Your task to perform on an android device: What's the weather? Image 0: 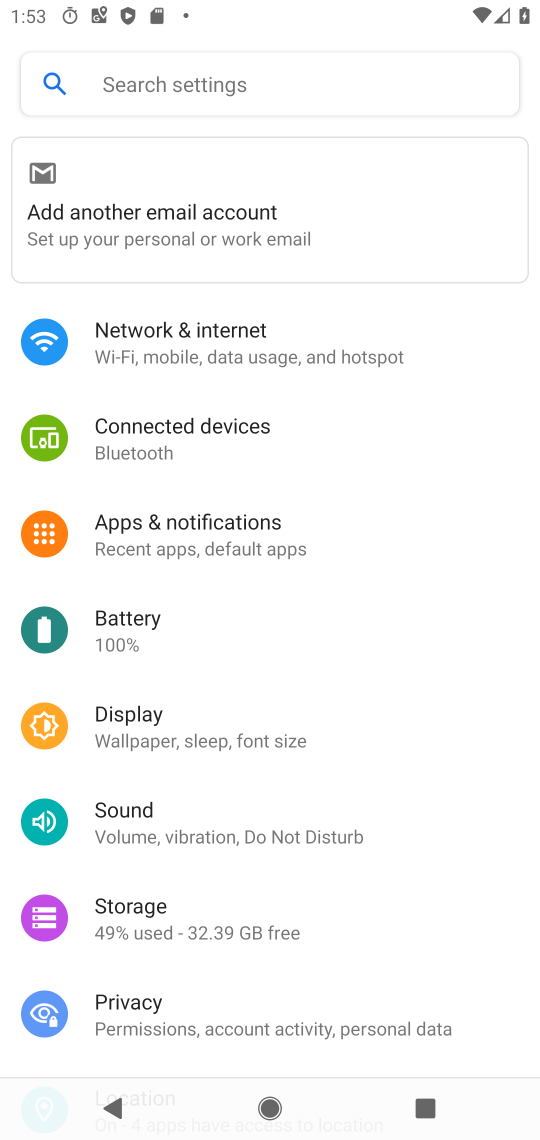
Step 0: press home button
Your task to perform on an android device: What's the weather? Image 1: 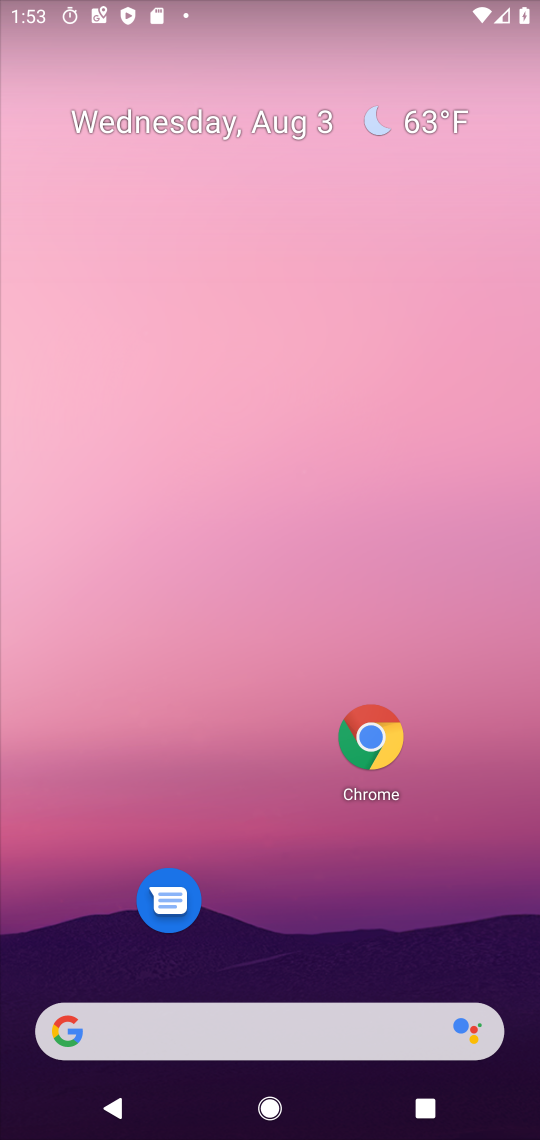
Step 1: drag from (420, 852) to (478, 180)
Your task to perform on an android device: What's the weather? Image 2: 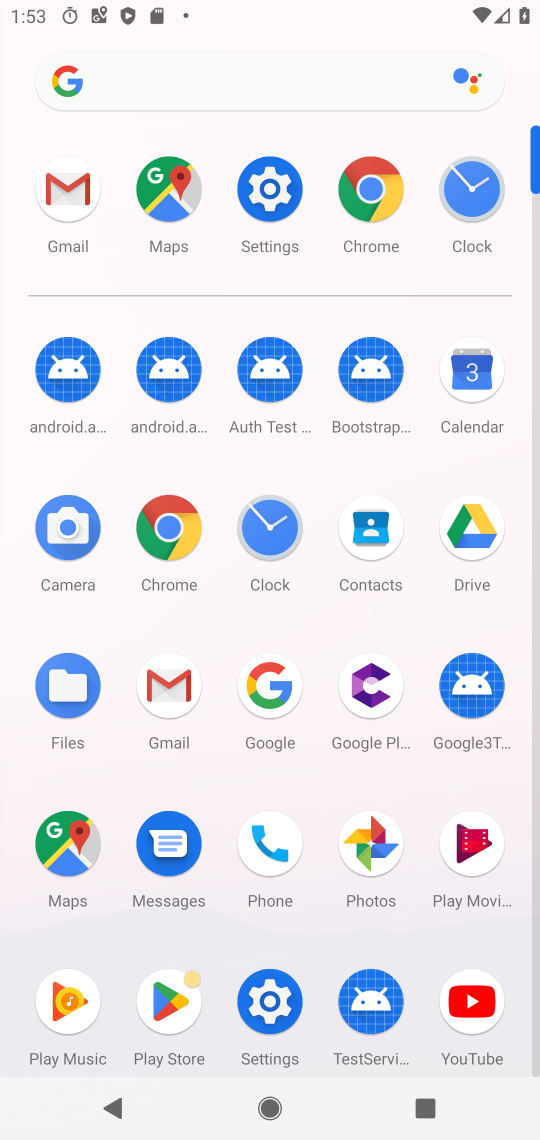
Step 2: click (167, 529)
Your task to perform on an android device: What's the weather? Image 3: 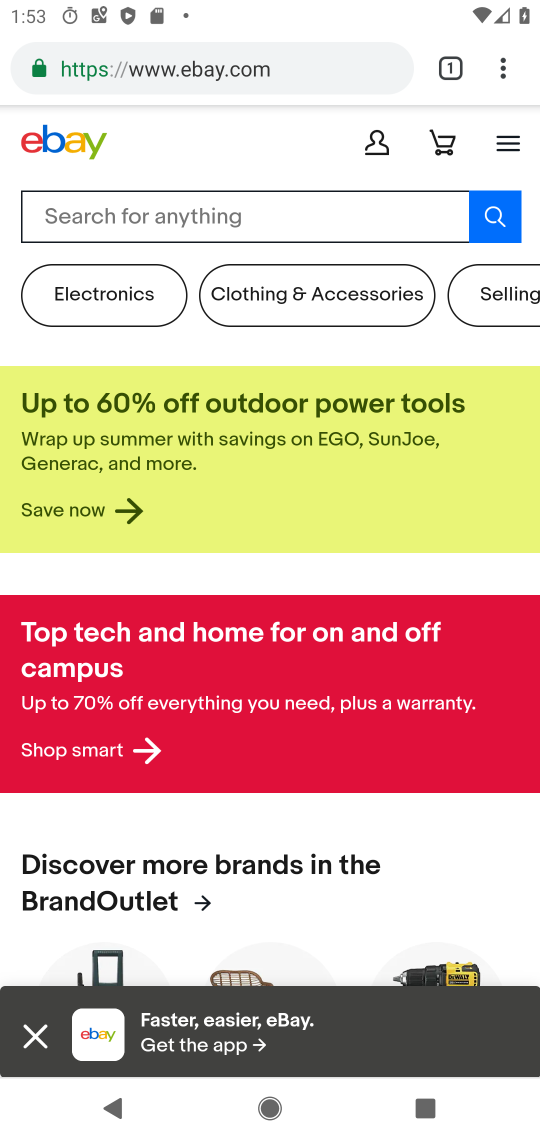
Step 3: click (259, 74)
Your task to perform on an android device: What's the weather? Image 4: 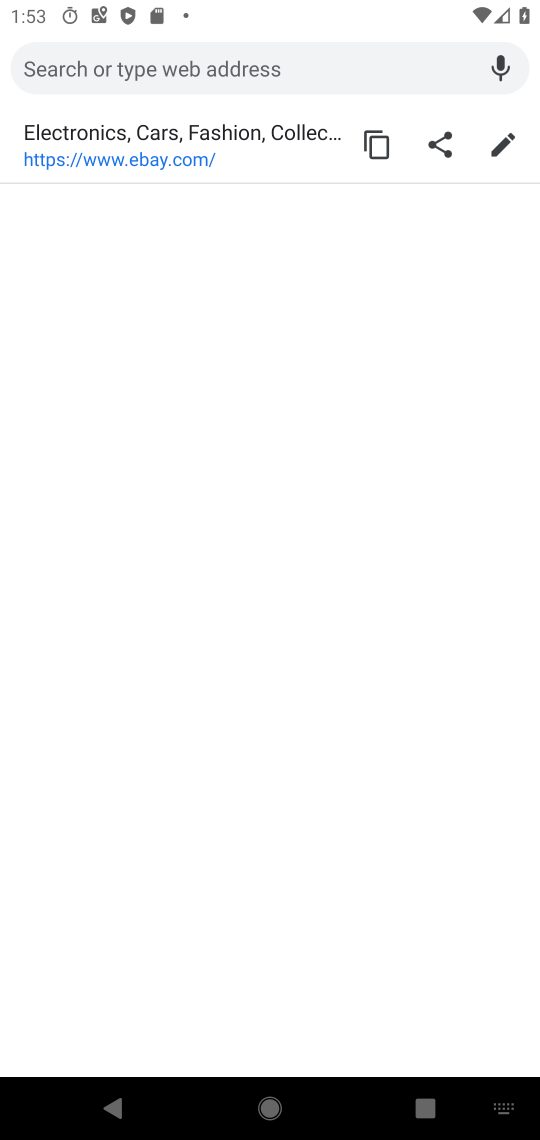
Step 4: type "weather"
Your task to perform on an android device: What's the weather? Image 5: 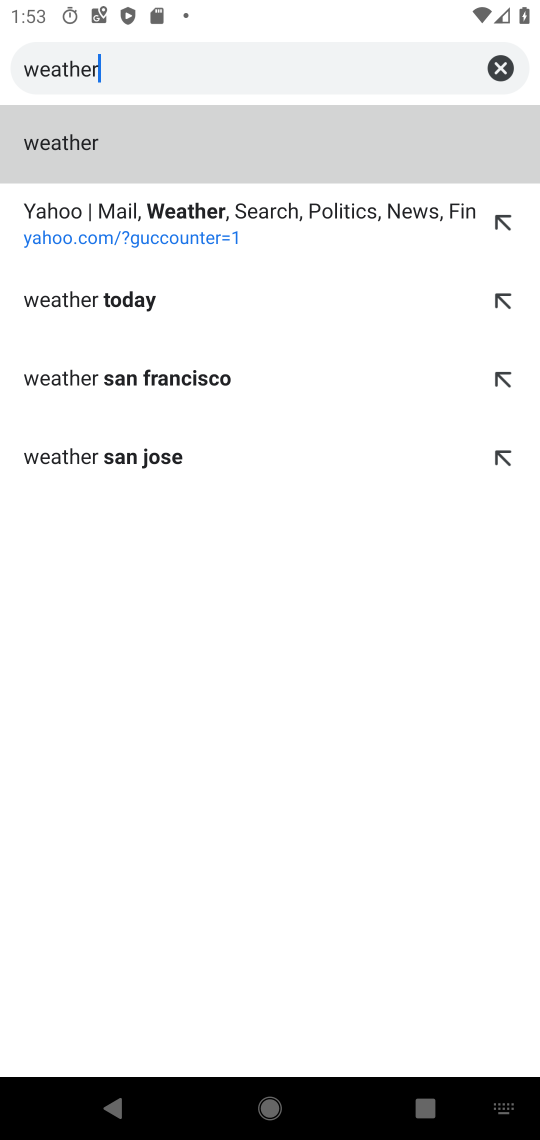
Step 5: click (127, 166)
Your task to perform on an android device: What's the weather? Image 6: 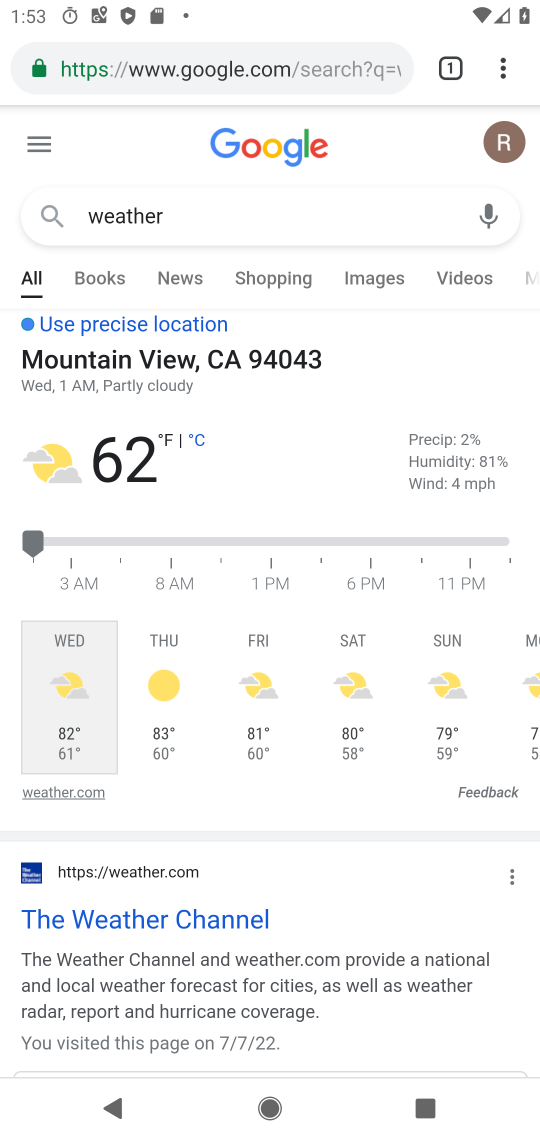
Step 6: task complete